Your task to perform on an android device: empty trash in google photos Image 0: 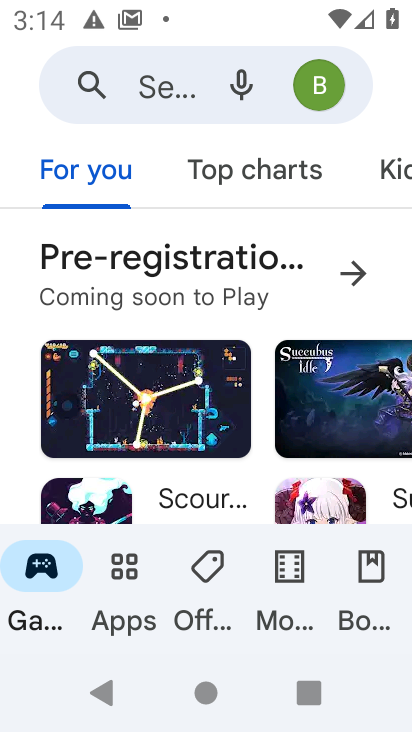
Step 0: press home button
Your task to perform on an android device: empty trash in google photos Image 1: 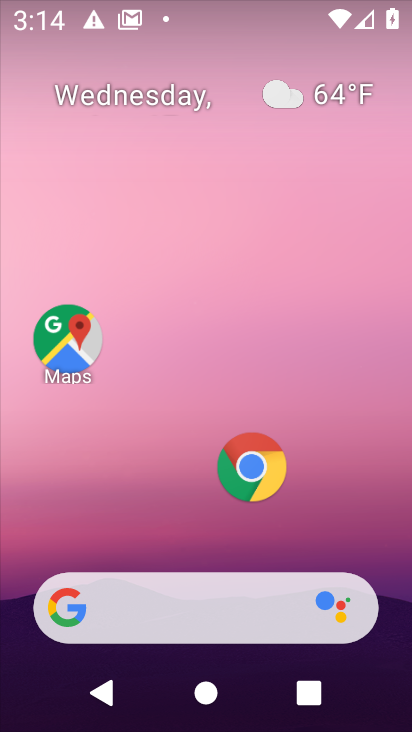
Step 1: task complete